Your task to perform on an android device: show emergency info Image 0: 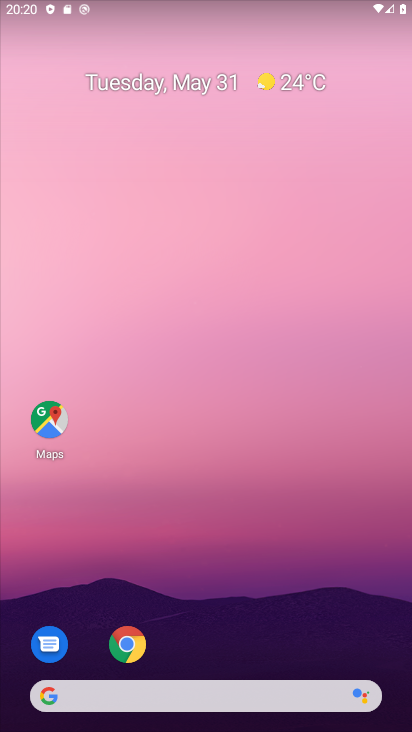
Step 0: drag from (300, 590) to (288, 249)
Your task to perform on an android device: show emergency info Image 1: 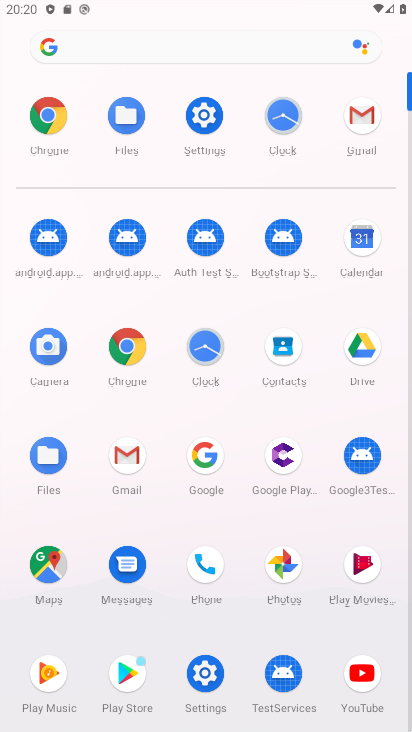
Step 1: click (210, 667)
Your task to perform on an android device: show emergency info Image 2: 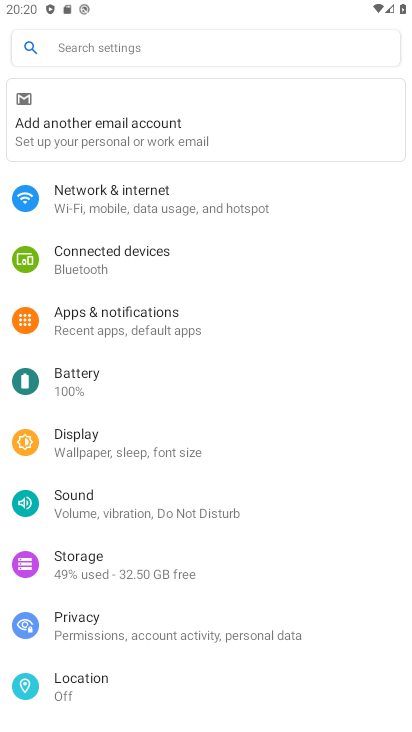
Step 2: drag from (301, 673) to (344, 328)
Your task to perform on an android device: show emergency info Image 3: 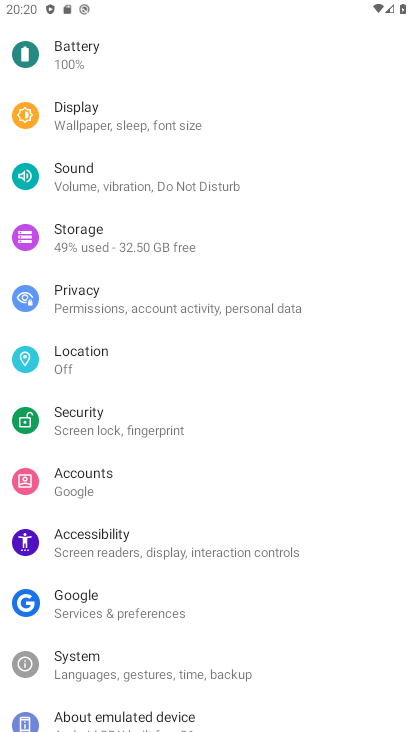
Step 3: drag from (331, 660) to (380, 311)
Your task to perform on an android device: show emergency info Image 4: 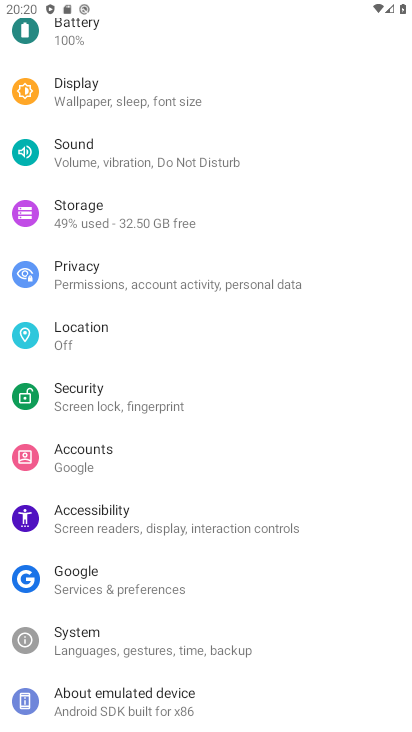
Step 4: click (195, 715)
Your task to perform on an android device: show emergency info Image 5: 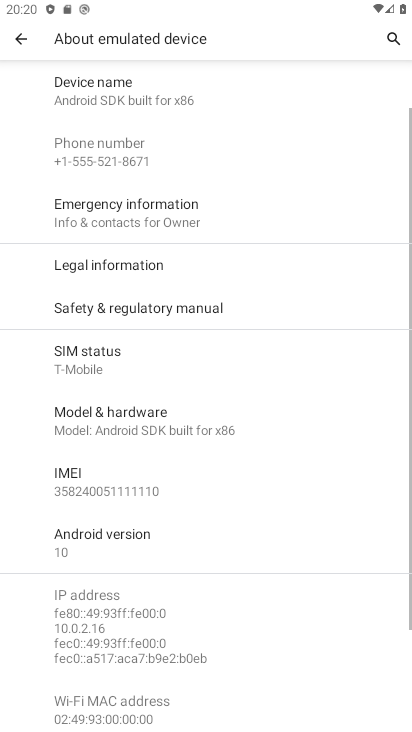
Step 5: click (174, 211)
Your task to perform on an android device: show emergency info Image 6: 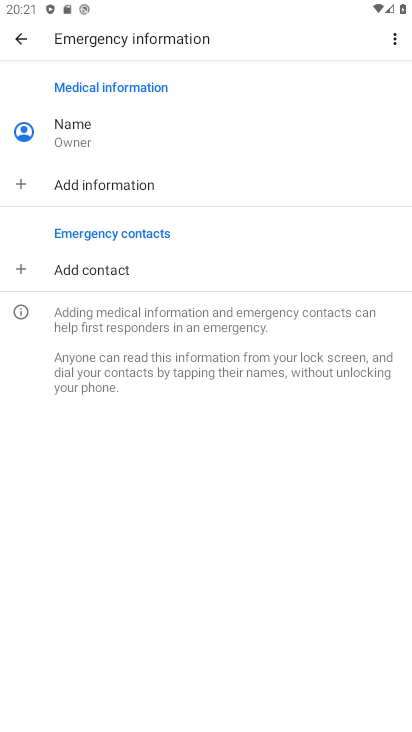
Step 6: task complete